Your task to perform on an android device: Open the map Image 0: 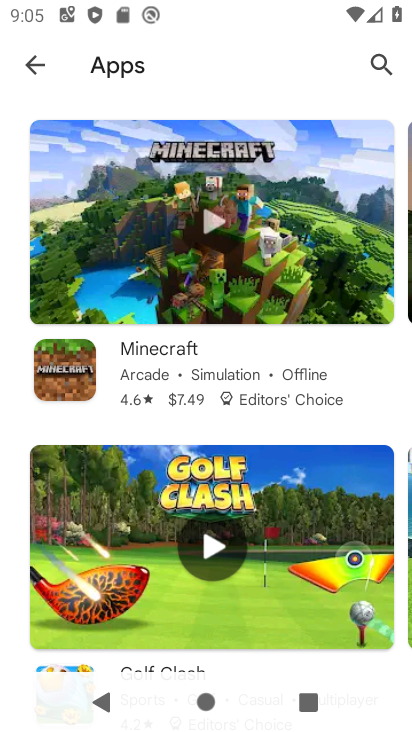
Step 0: press home button
Your task to perform on an android device: Open the map Image 1: 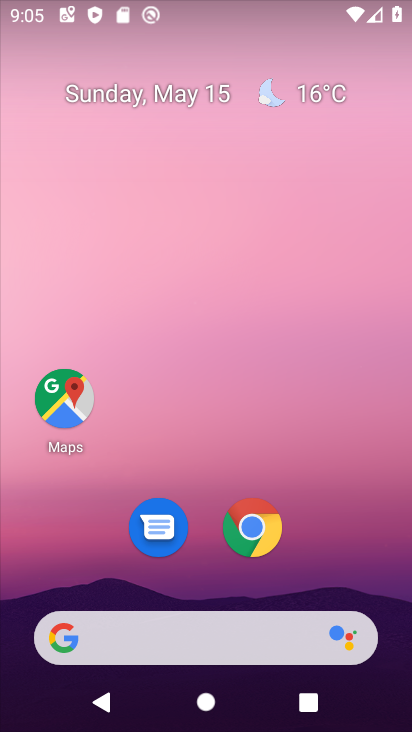
Step 1: click (53, 393)
Your task to perform on an android device: Open the map Image 2: 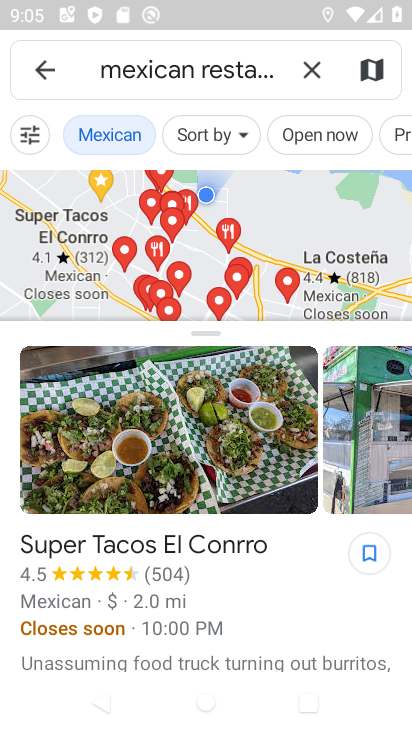
Step 2: task complete